Your task to perform on an android device: Go to Google maps Image 0: 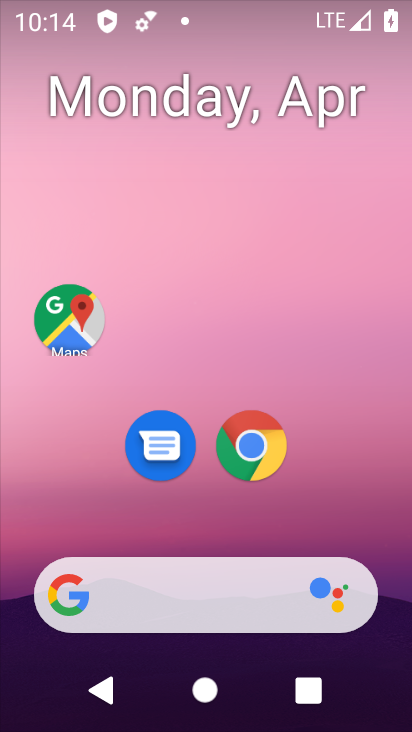
Step 0: click (80, 315)
Your task to perform on an android device: Go to Google maps Image 1: 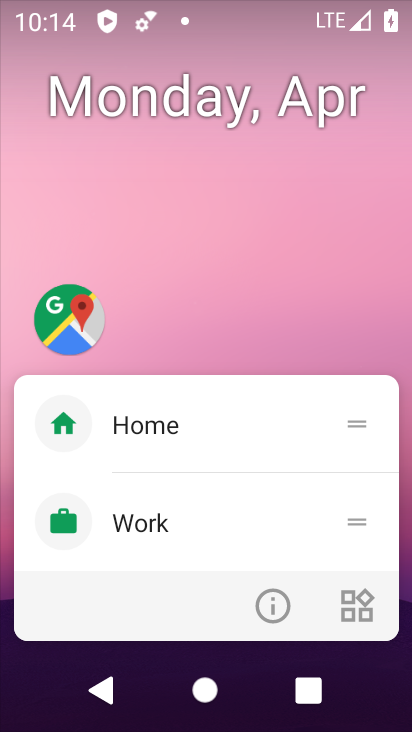
Step 1: click (80, 315)
Your task to perform on an android device: Go to Google maps Image 2: 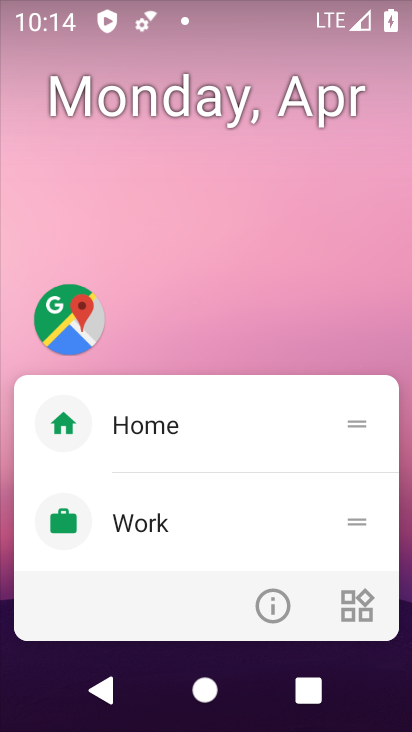
Step 2: click (58, 310)
Your task to perform on an android device: Go to Google maps Image 3: 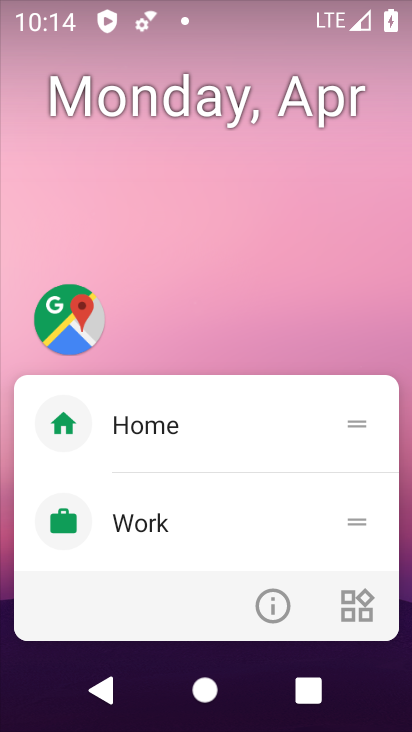
Step 3: click (62, 324)
Your task to perform on an android device: Go to Google maps Image 4: 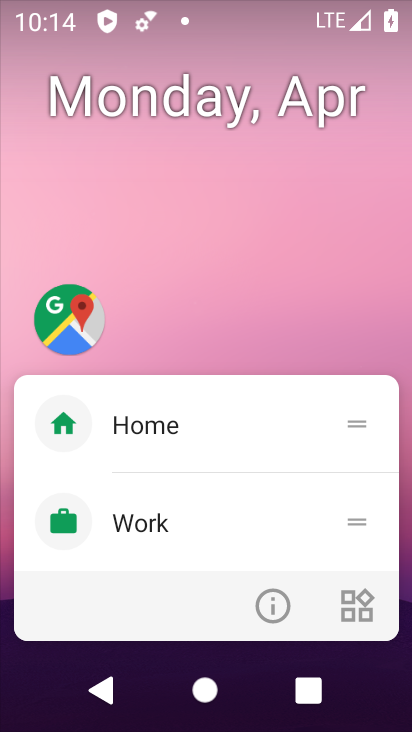
Step 4: click (66, 333)
Your task to perform on an android device: Go to Google maps Image 5: 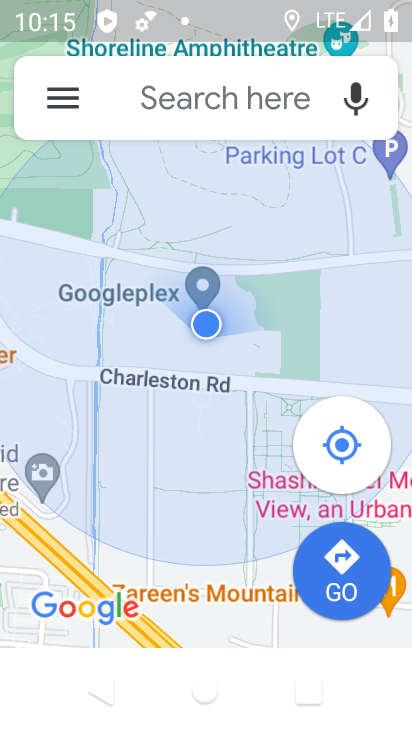
Step 5: task complete